Your task to perform on an android device: Open the calendar app, open the side menu, and click the "Day" option Image 0: 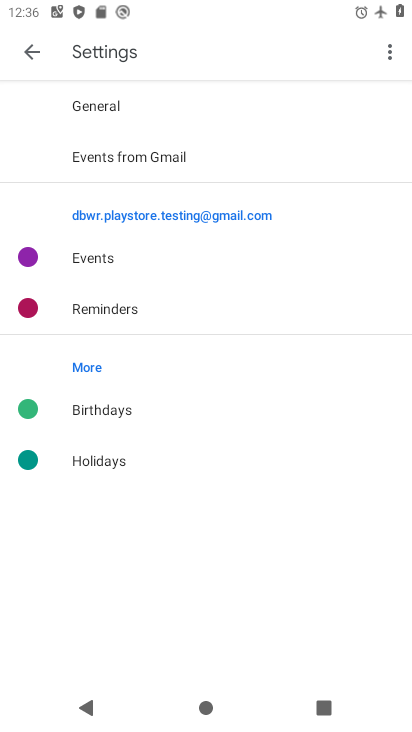
Step 0: press home button
Your task to perform on an android device: Open the calendar app, open the side menu, and click the "Day" option Image 1: 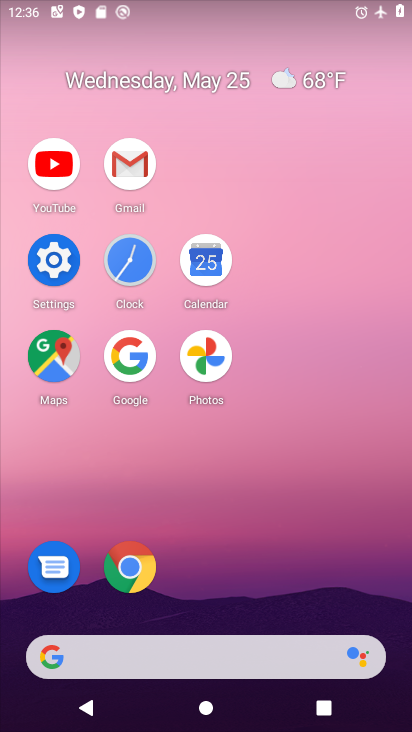
Step 1: click (213, 272)
Your task to perform on an android device: Open the calendar app, open the side menu, and click the "Day" option Image 2: 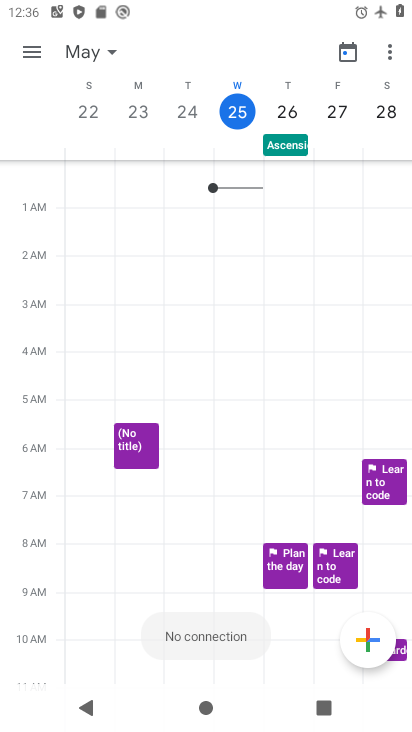
Step 2: click (35, 61)
Your task to perform on an android device: Open the calendar app, open the side menu, and click the "Day" option Image 3: 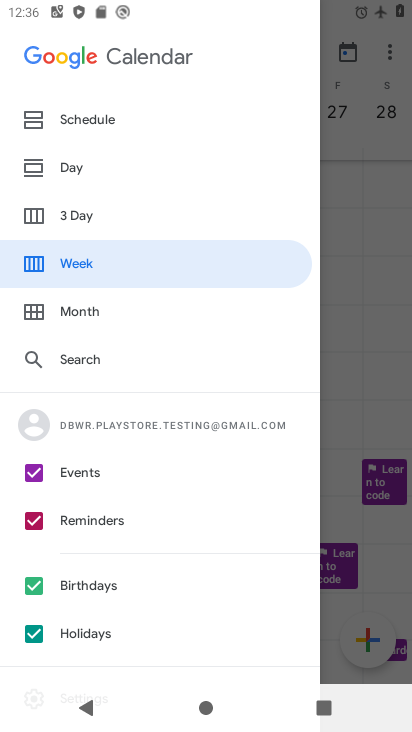
Step 3: click (88, 172)
Your task to perform on an android device: Open the calendar app, open the side menu, and click the "Day" option Image 4: 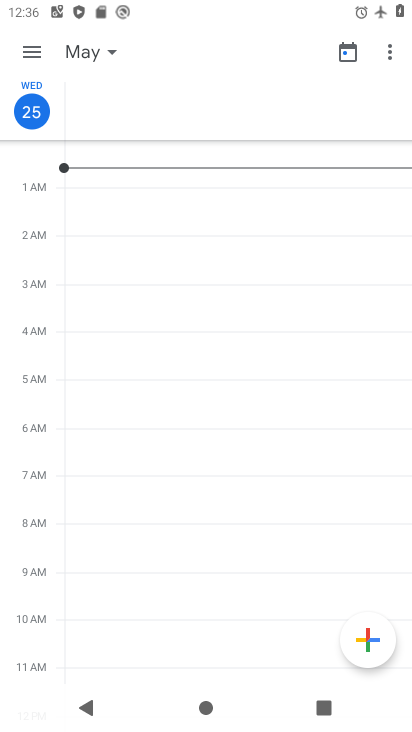
Step 4: task complete